Your task to perform on an android device: Open network settings Image 0: 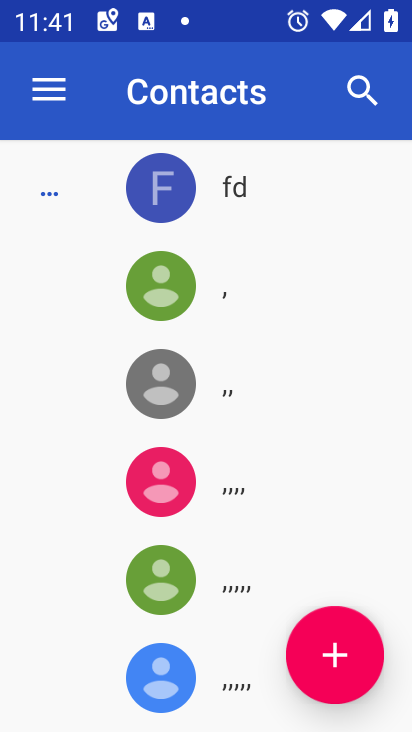
Step 0: press home button
Your task to perform on an android device: Open network settings Image 1: 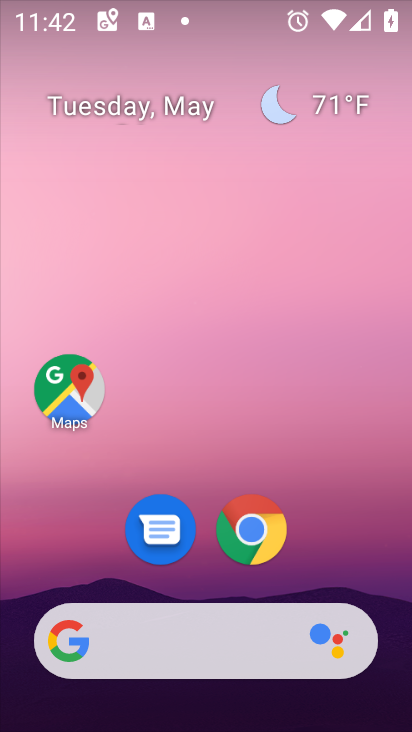
Step 1: drag from (155, 573) to (167, 102)
Your task to perform on an android device: Open network settings Image 2: 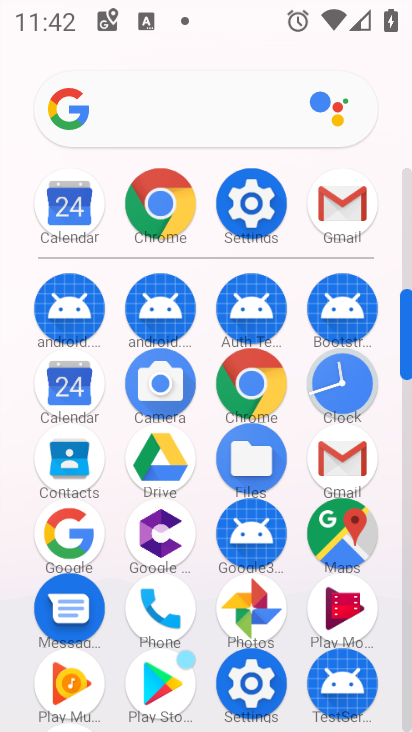
Step 2: click (257, 214)
Your task to perform on an android device: Open network settings Image 3: 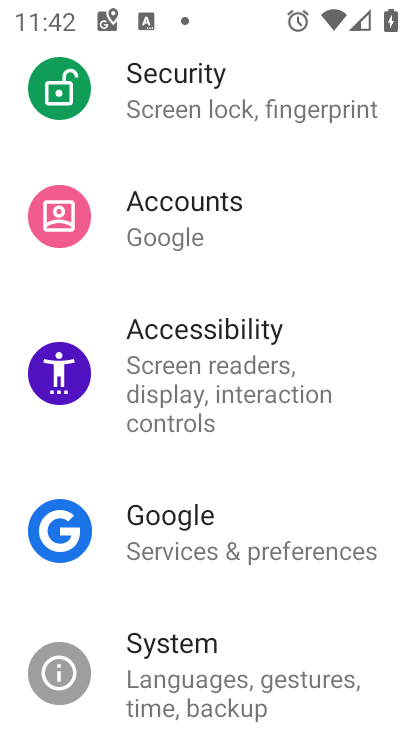
Step 3: drag from (164, 314) to (138, 716)
Your task to perform on an android device: Open network settings Image 4: 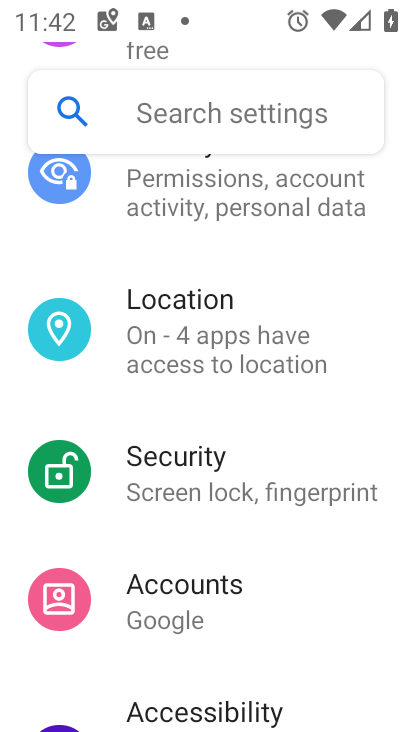
Step 4: drag from (204, 376) to (170, 722)
Your task to perform on an android device: Open network settings Image 5: 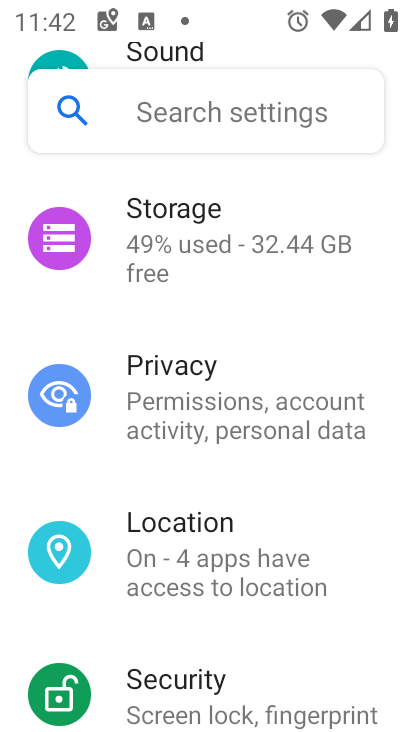
Step 5: drag from (175, 328) to (172, 723)
Your task to perform on an android device: Open network settings Image 6: 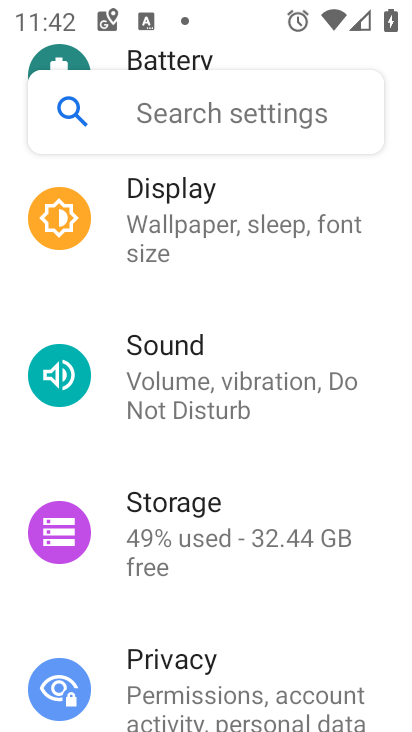
Step 6: drag from (182, 315) to (164, 702)
Your task to perform on an android device: Open network settings Image 7: 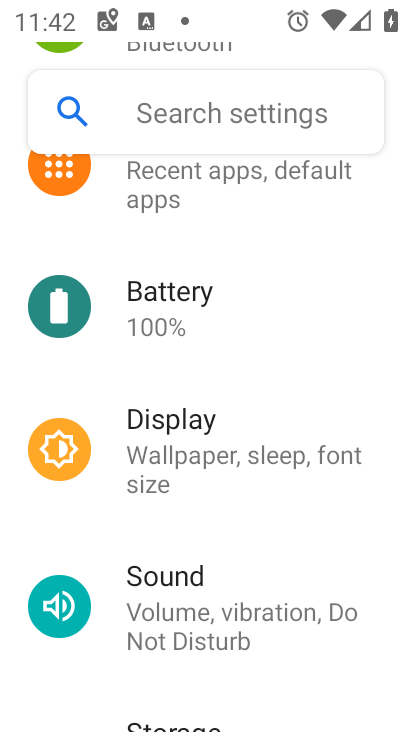
Step 7: drag from (216, 305) to (186, 665)
Your task to perform on an android device: Open network settings Image 8: 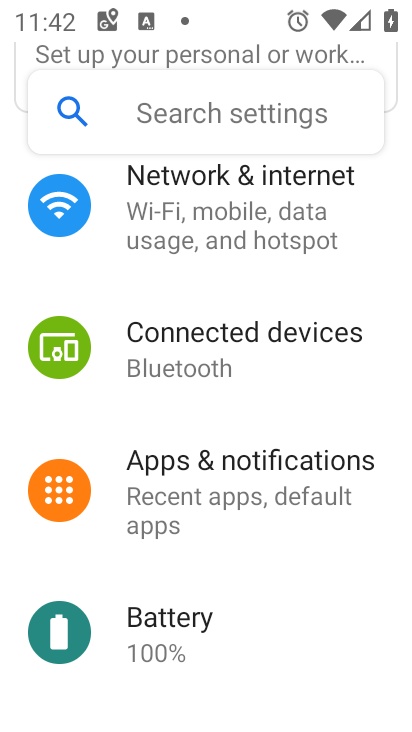
Step 8: drag from (220, 297) to (179, 581)
Your task to perform on an android device: Open network settings Image 9: 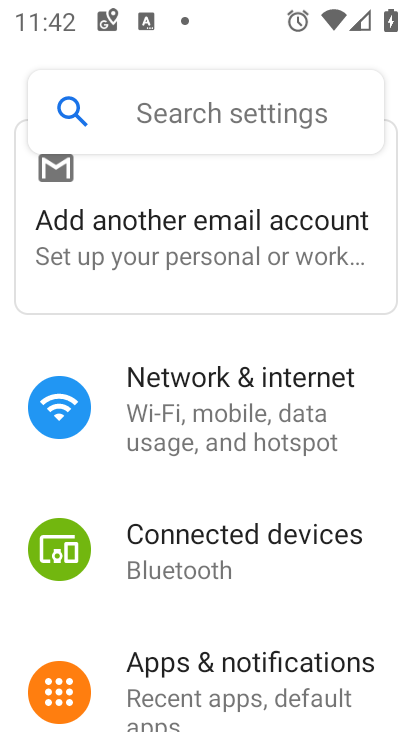
Step 9: click (200, 416)
Your task to perform on an android device: Open network settings Image 10: 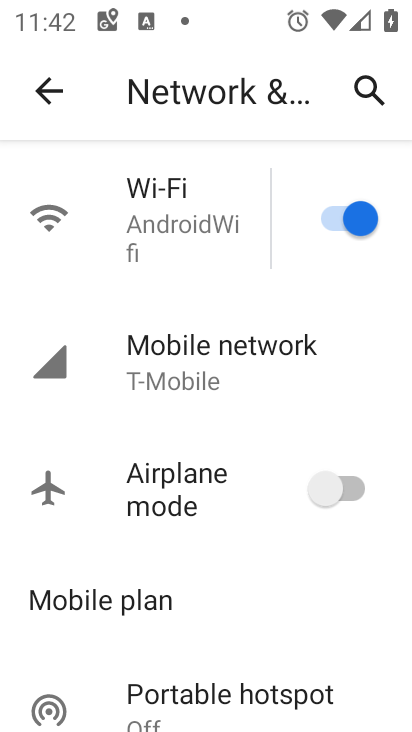
Step 10: click (145, 230)
Your task to perform on an android device: Open network settings Image 11: 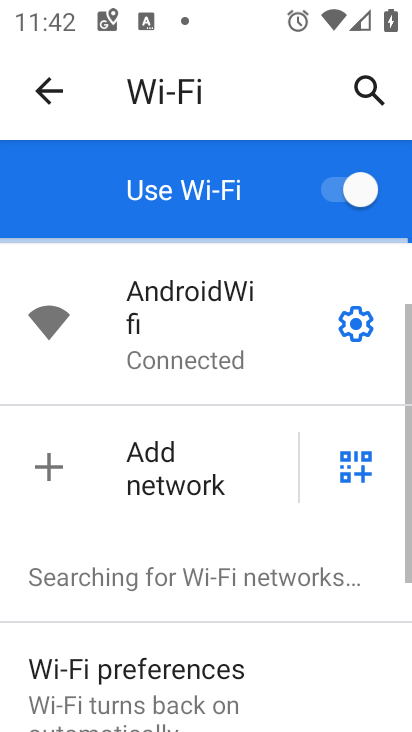
Step 11: task complete